Your task to perform on an android device: What's on my calendar tomorrow? Image 0: 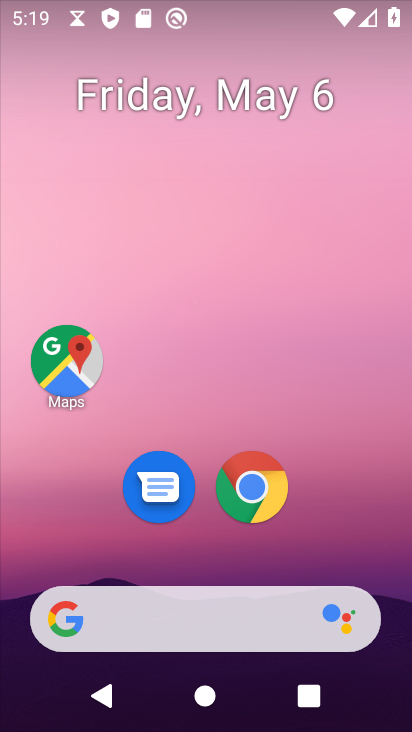
Step 0: drag from (339, 519) to (250, 23)
Your task to perform on an android device: What's on my calendar tomorrow? Image 1: 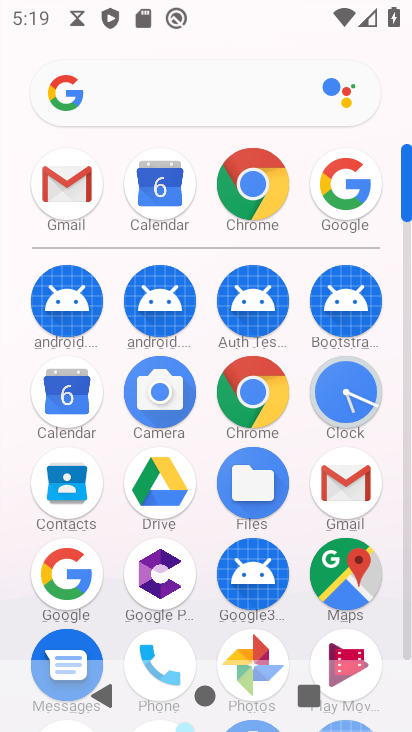
Step 1: click (73, 394)
Your task to perform on an android device: What's on my calendar tomorrow? Image 2: 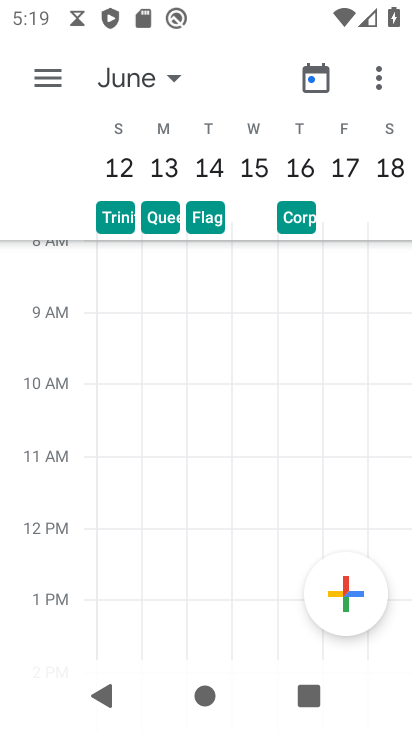
Step 2: click (319, 79)
Your task to perform on an android device: What's on my calendar tomorrow? Image 3: 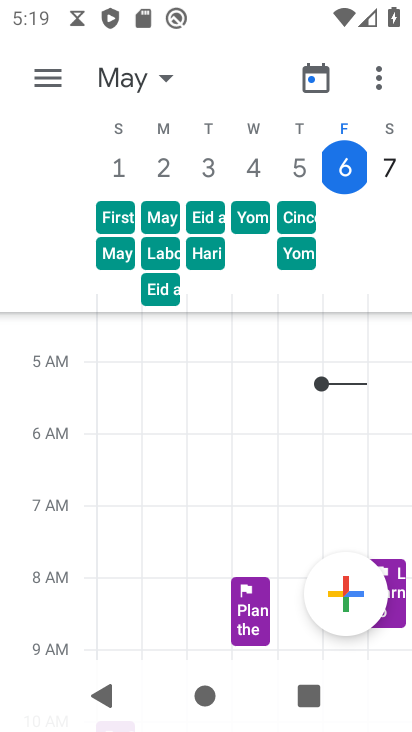
Step 3: click (55, 81)
Your task to perform on an android device: What's on my calendar tomorrow? Image 4: 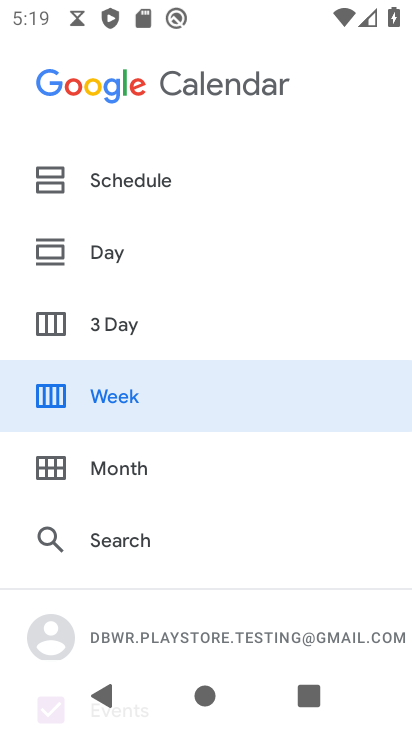
Step 4: click (132, 174)
Your task to perform on an android device: What's on my calendar tomorrow? Image 5: 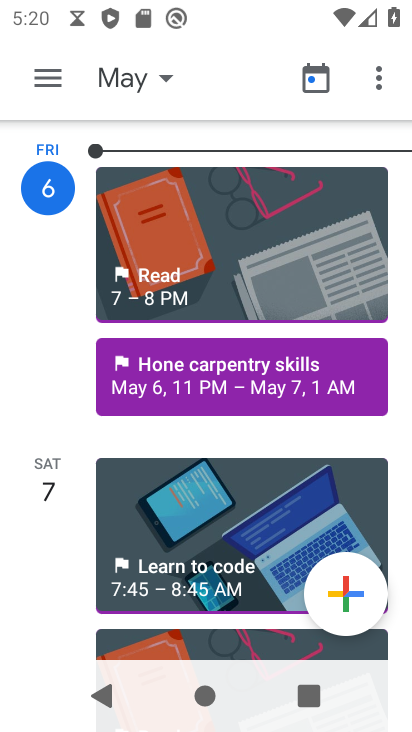
Step 5: click (170, 544)
Your task to perform on an android device: What's on my calendar tomorrow? Image 6: 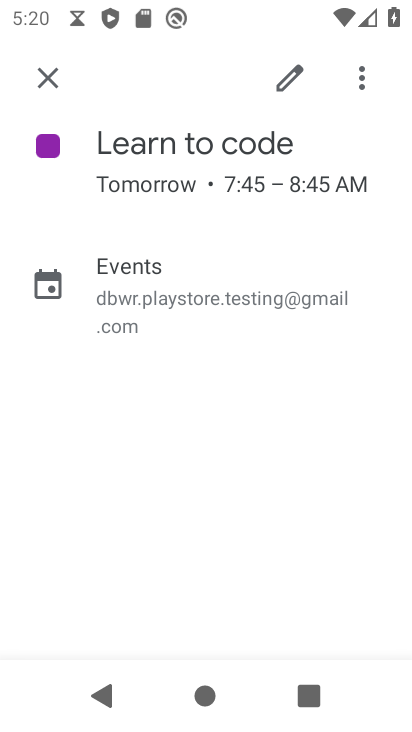
Step 6: task complete